Your task to perform on an android device: change text size in settings app Image 0: 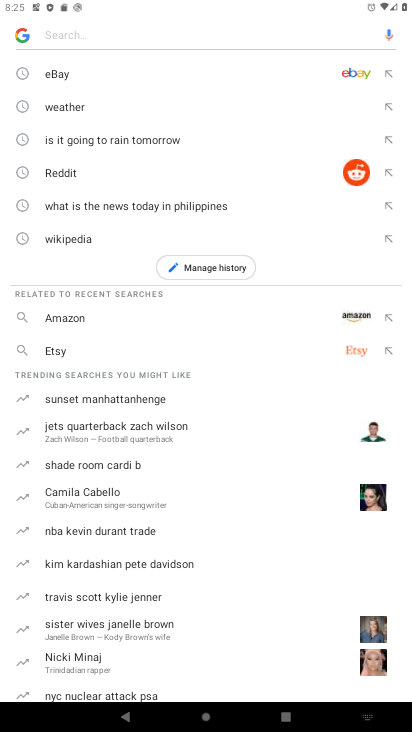
Step 0: press home button
Your task to perform on an android device: change text size in settings app Image 1: 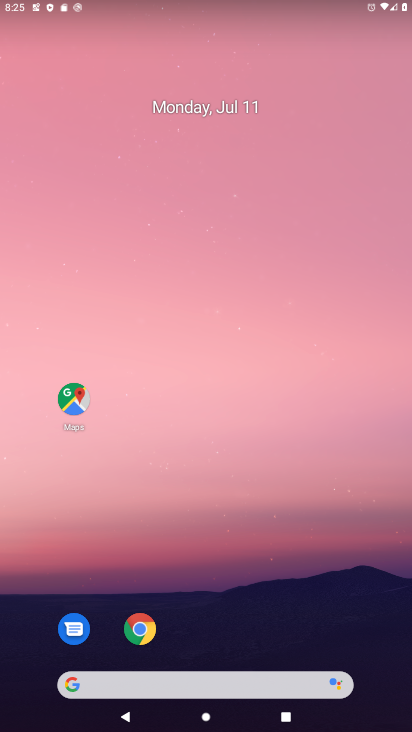
Step 1: drag from (230, 631) to (220, 40)
Your task to perform on an android device: change text size in settings app Image 2: 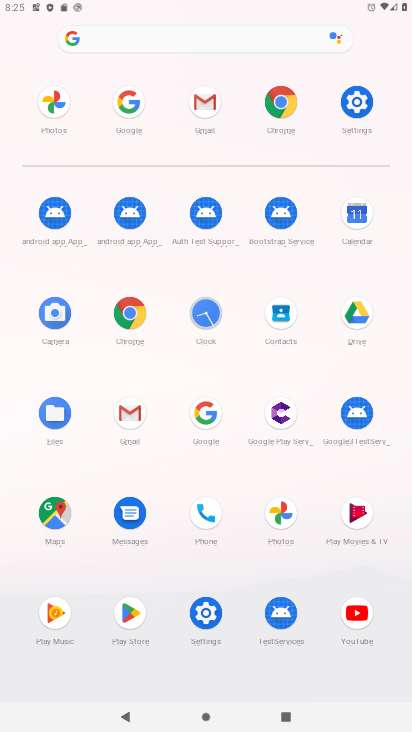
Step 2: click (359, 102)
Your task to perform on an android device: change text size in settings app Image 3: 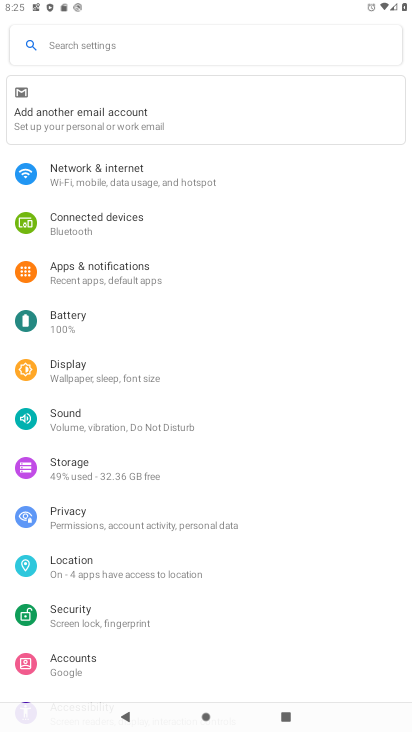
Step 3: click (139, 377)
Your task to perform on an android device: change text size in settings app Image 4: 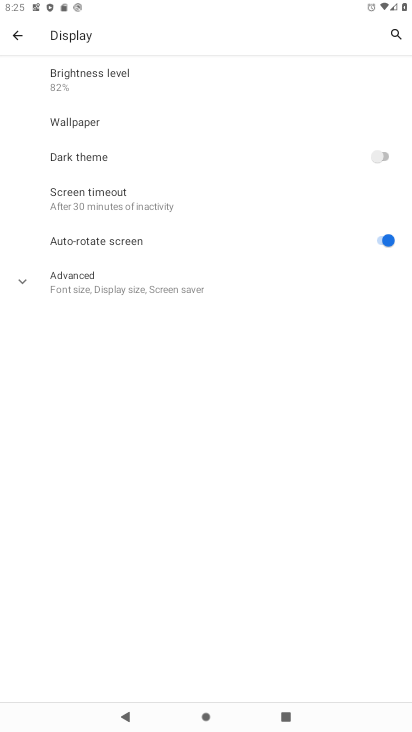
Step 4: click (88, 280)
Your task to perform on an android device: change text size in settings app Image 5: 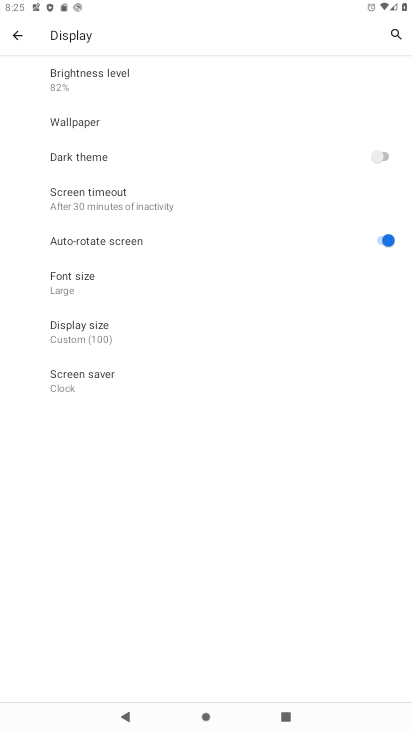
Step 5: click (100, 289)
Your task to perform on an android device: change text size in settings app Image 6: 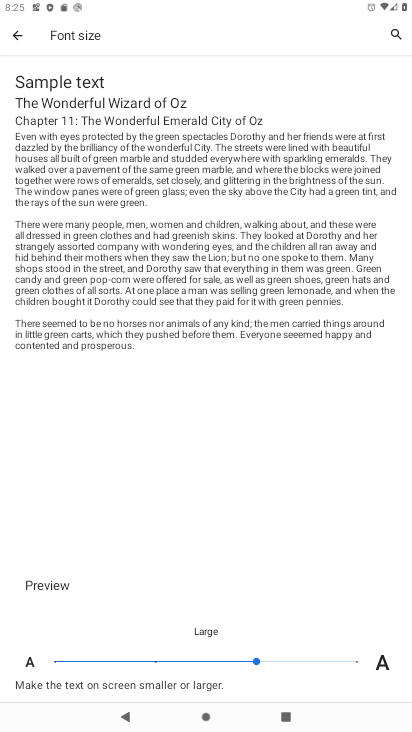
Step 6: task complete